Your task to perform on an android device: What is the recent news? Image 0: 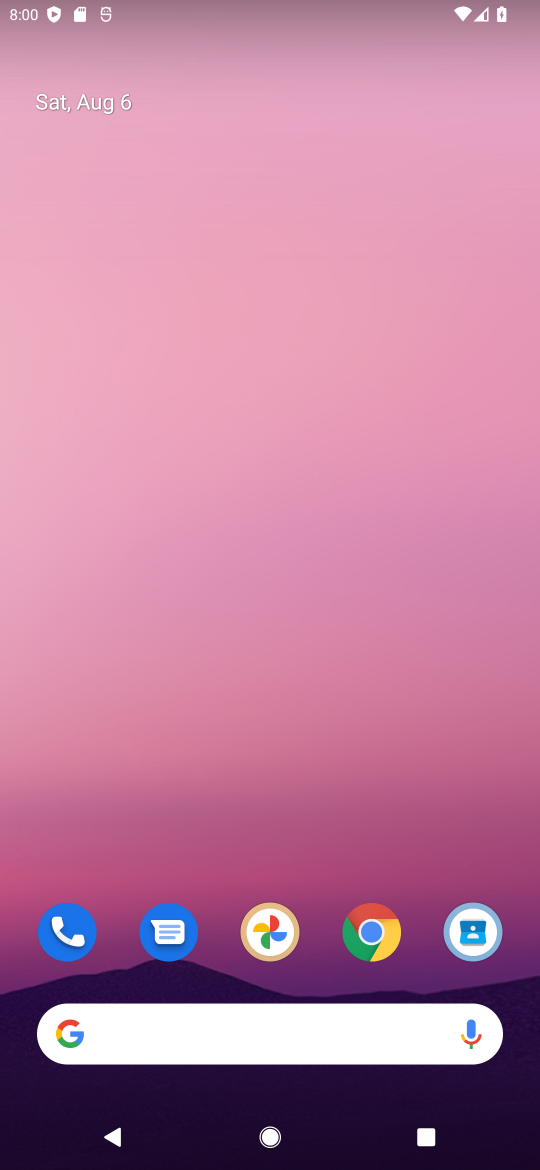
Step 0: press home button
Your task to perform on an android device: What is the recent news? Image 1: 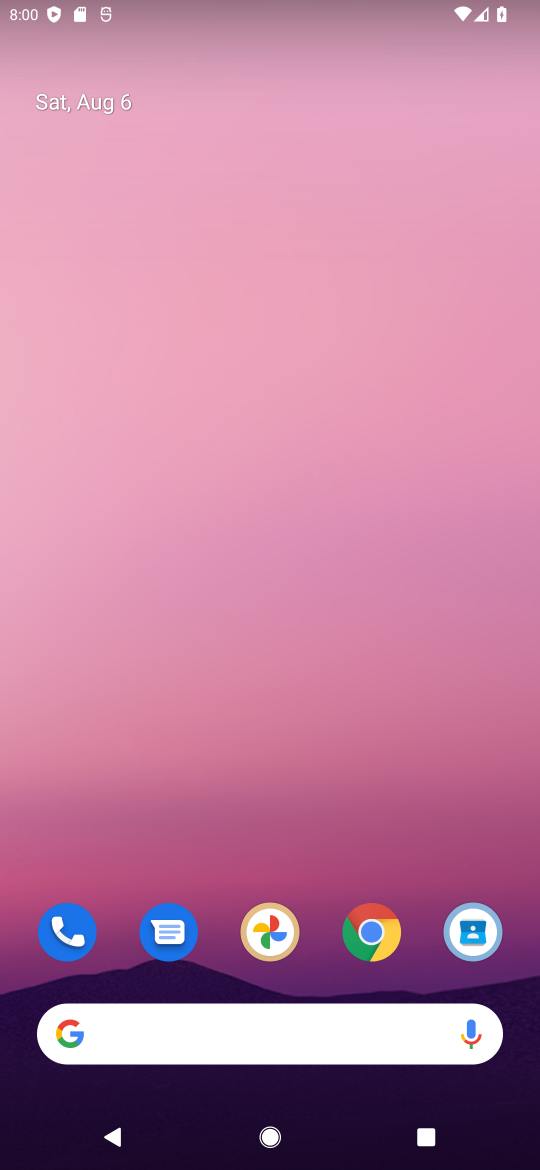
Step 1: click (212, 1028)
Your task to perform on an android device: What is the recent news? Image 2: 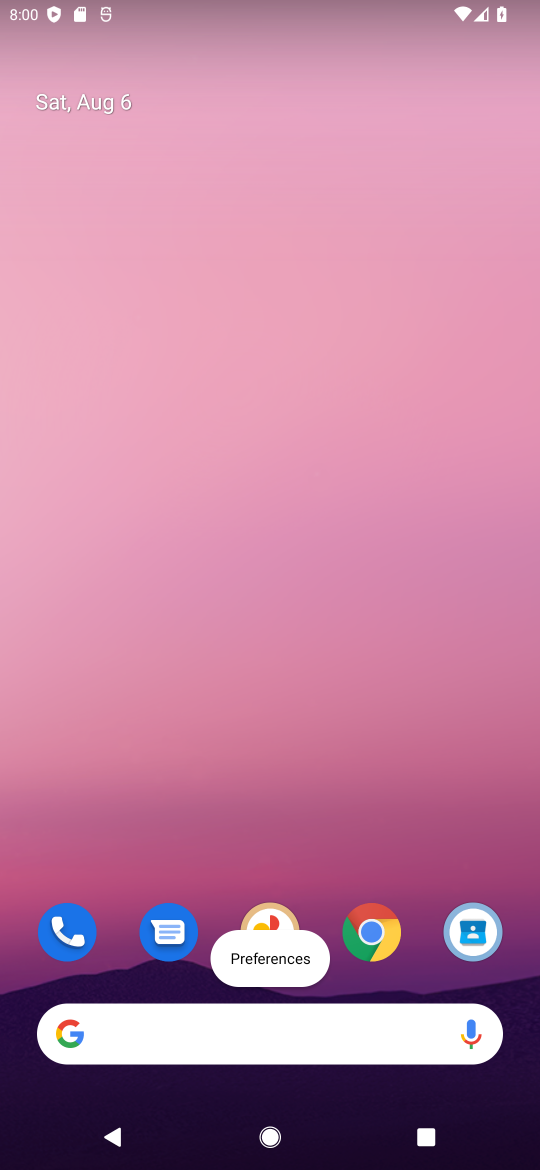
Step 2: click (185, 1027)
Your task to perform on an android device: What is the recent news? Image 3: 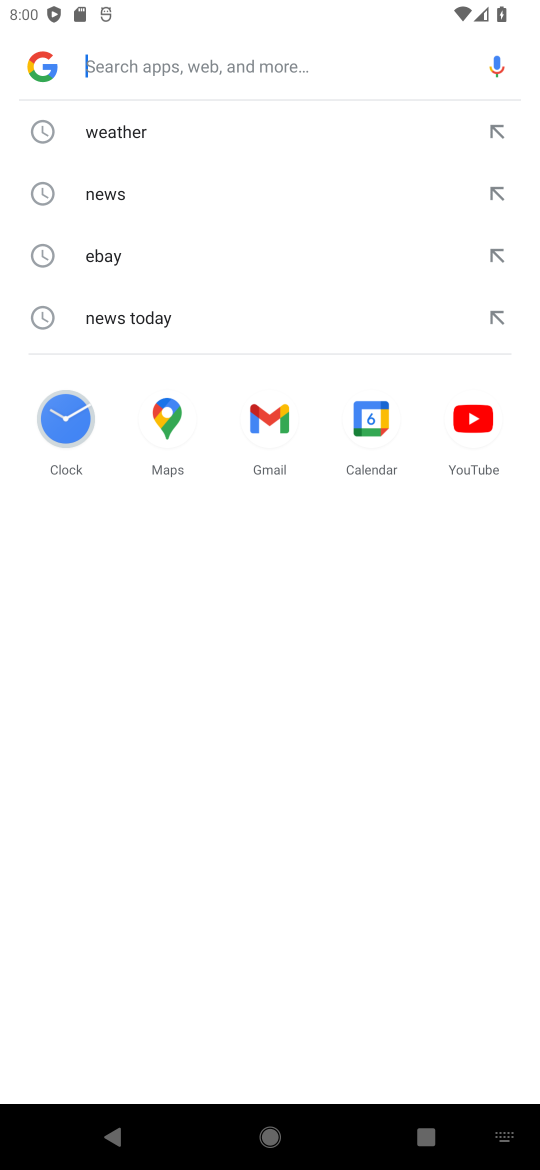
Step 3: click (113, 194)
Your task to perform on an android device: What is the recent news? Image 4: 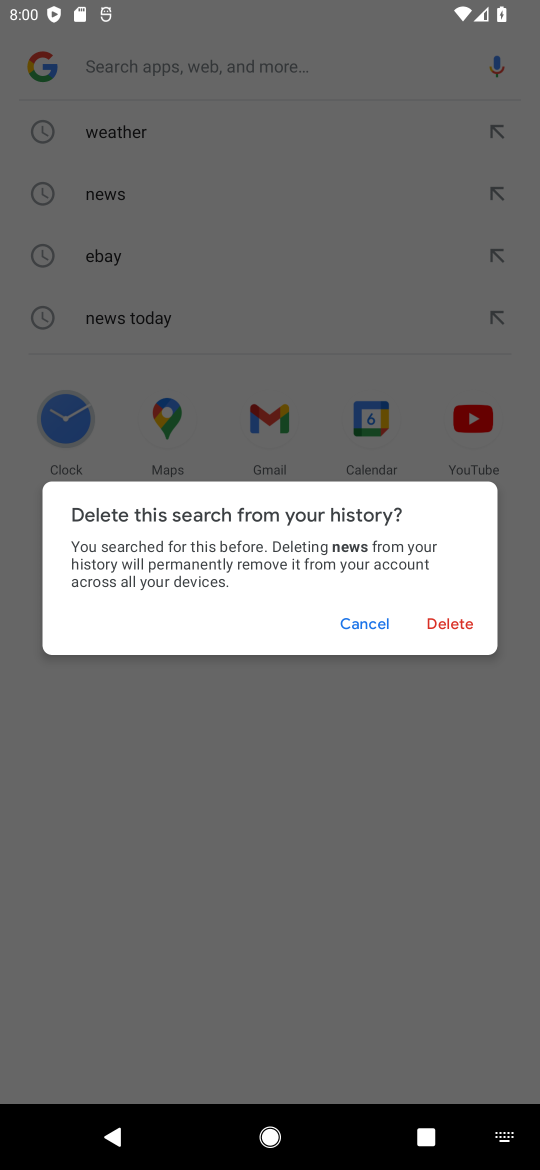
Step 4: click (369, 617)
Your task to perform on an android device: What is the recent news? Image 5: 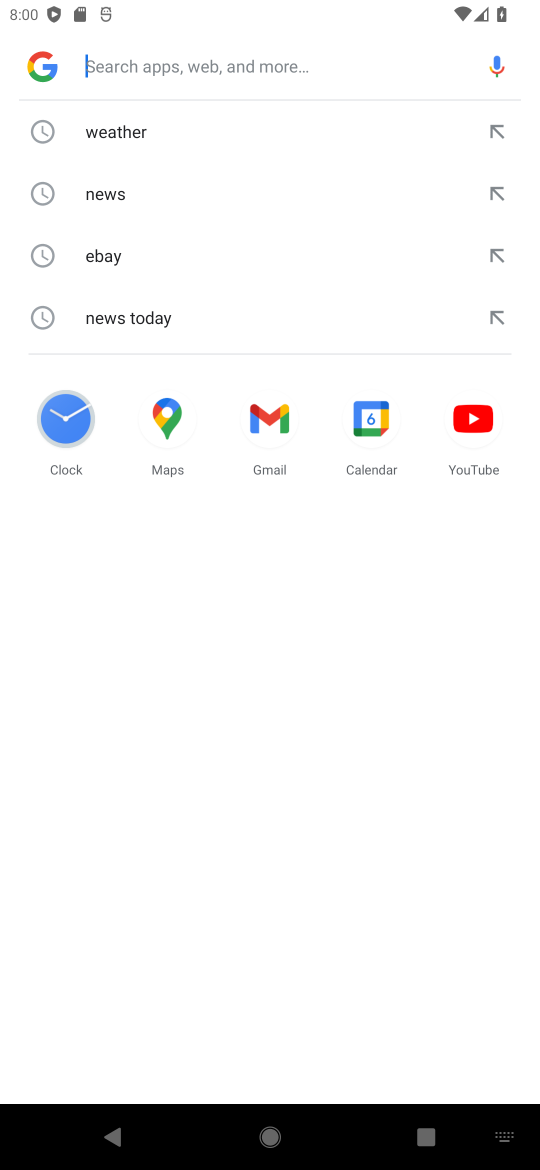
Step 5: click (145, 191)
Your task to perform on an android device: What is the recent news? Image 6: 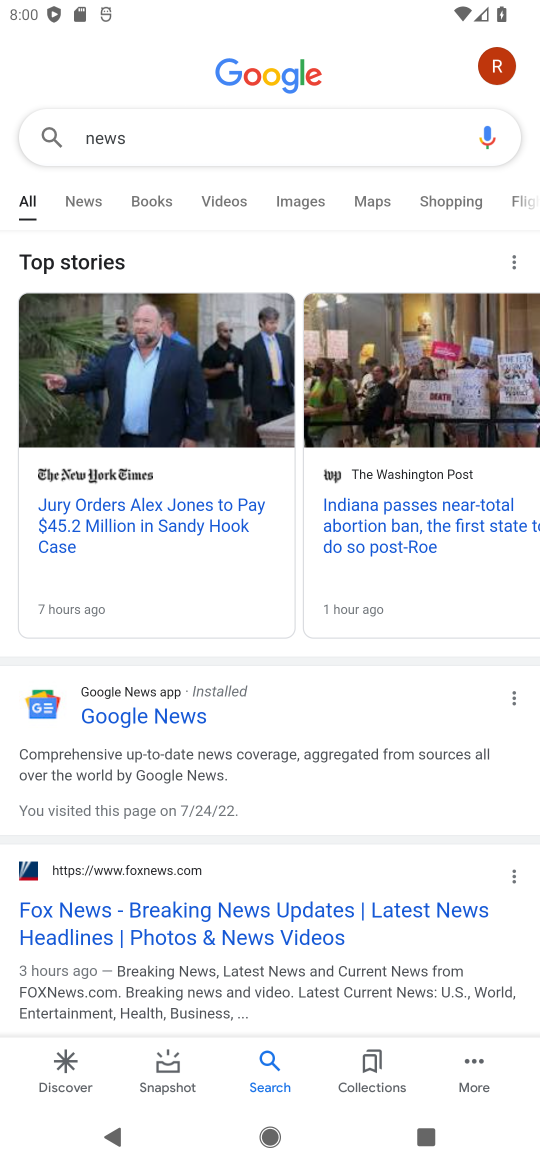
Step 6: click (88, 205)
Your task to perform on an android device: What is the recent news? Image 7: 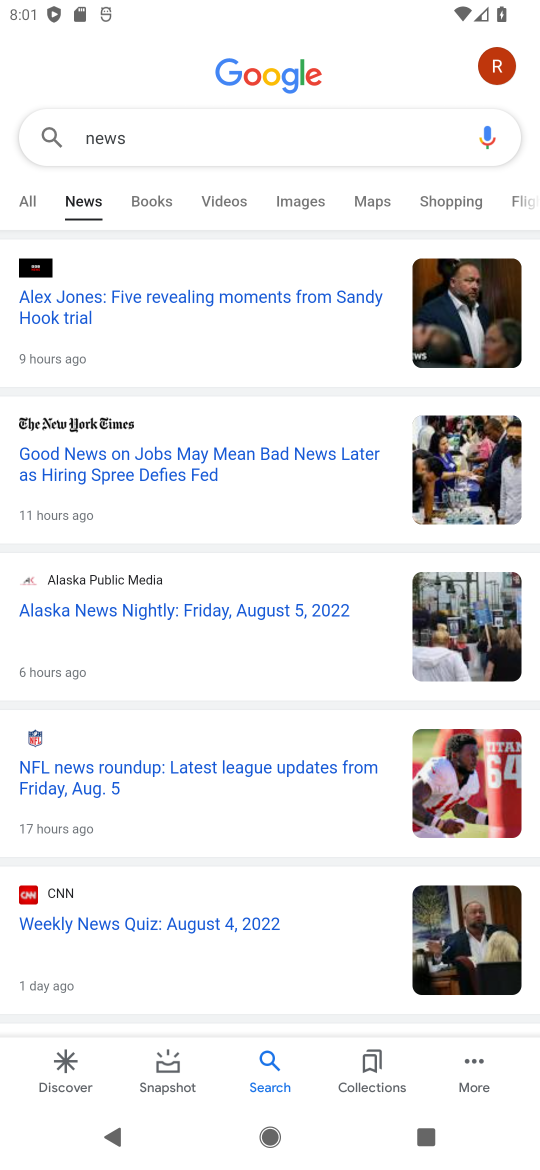
Step 7: task complete